Your task to perform on an android device: toggle airplane mode Image 0: 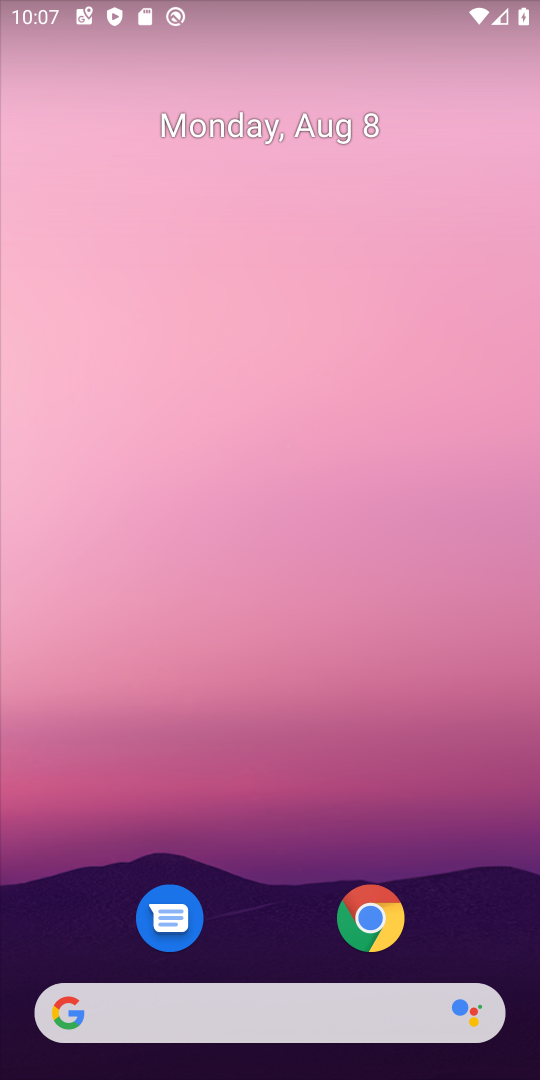
Step 0: drag from (253, 947) to (143, 85)
Your task to perform on an android device: toggle airplane mode Image 1: 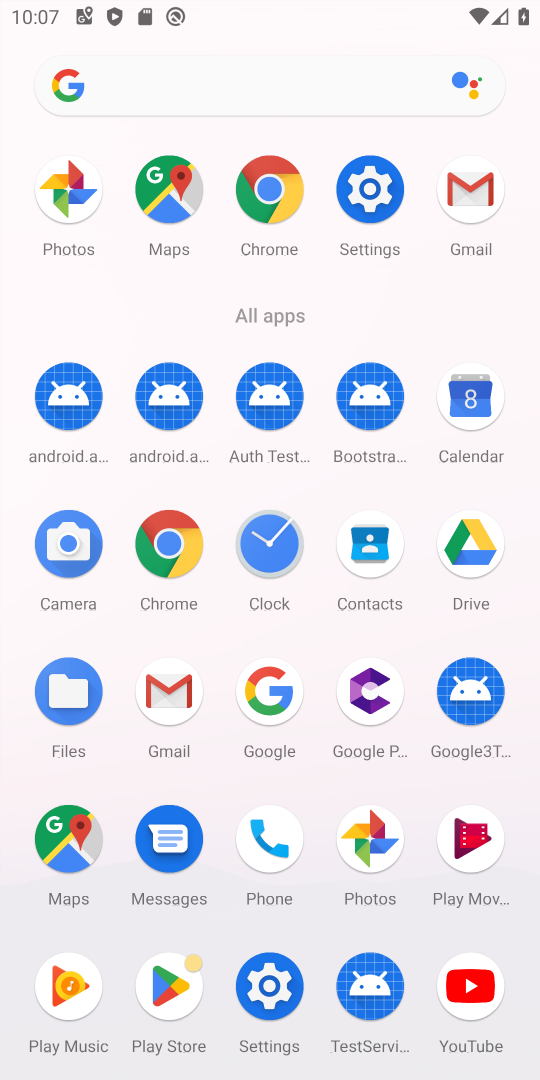
Step 1: click (274, 994)
Your task to perform on an android device: toggle airplane mode Image 2: 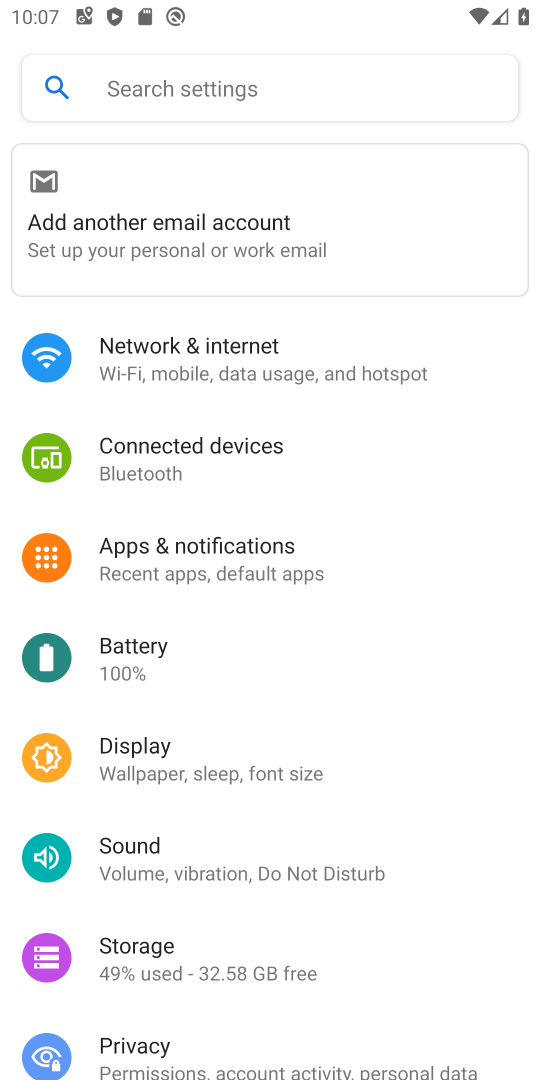
Step 2: click (262, 388)
Your task to perform on an android device: toggle airplane mode Image 3: 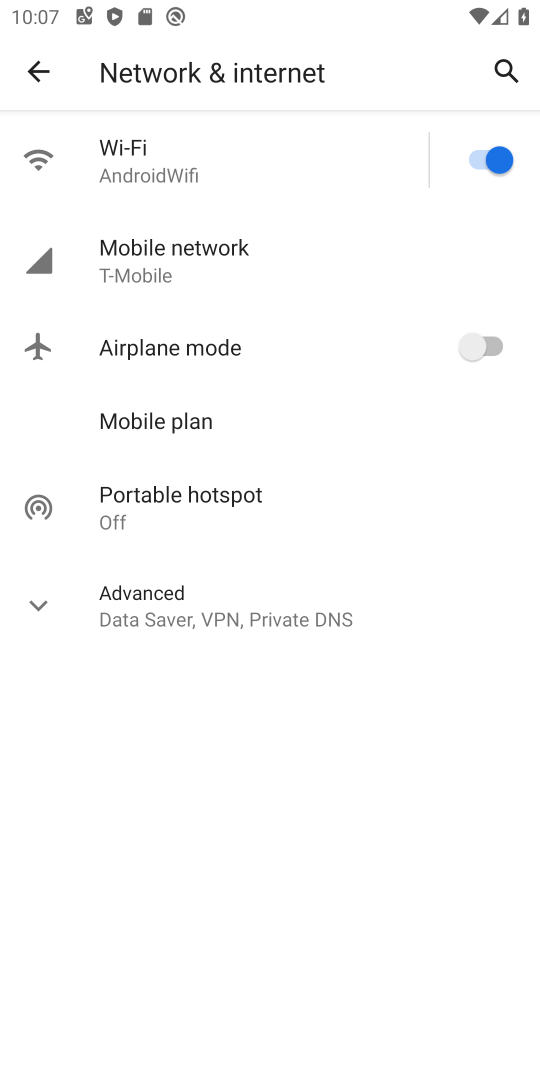
Step 3: click (468, 347)
Your task to perform on an android device: toggle airplane mode Image 4: 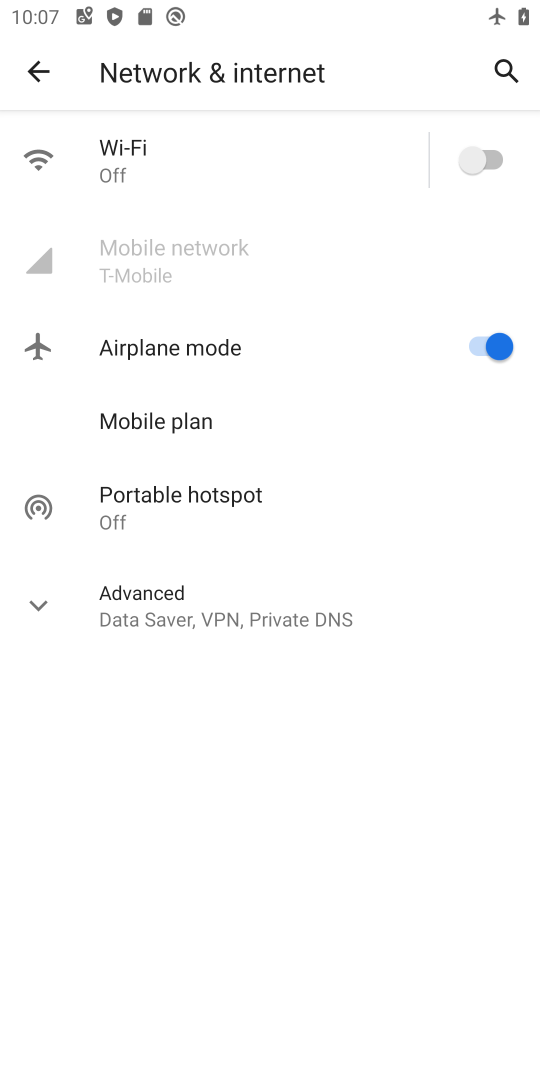
Step 4: task complete